Your task to perform on an android device: Open display settings Image 0: 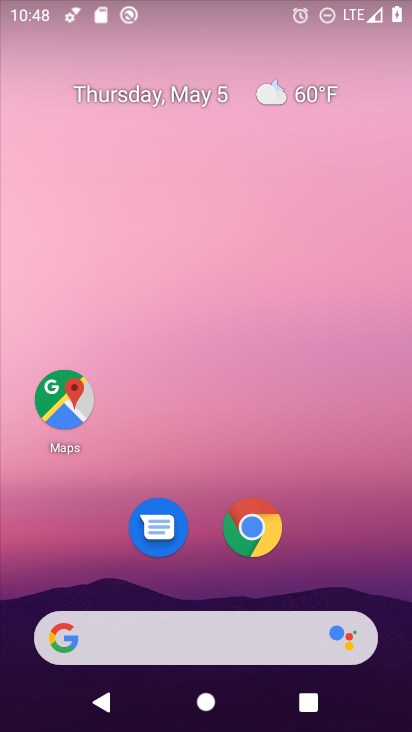
Step 0: drag from (243, 699) to (195, 48)
Your task to perform on an android device: Open display settings Image 1: 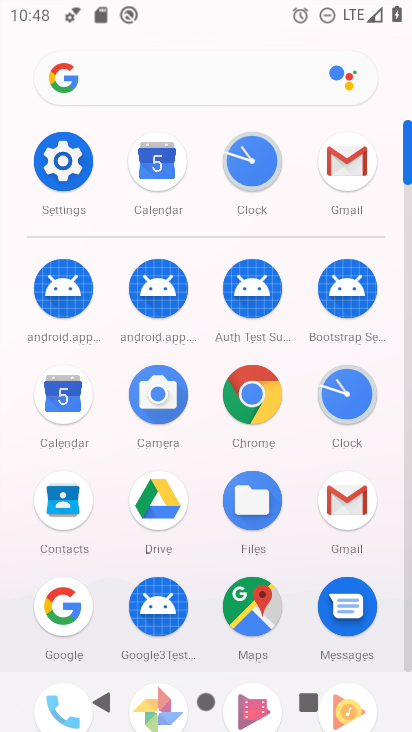
Step 1: click (64, 170)
Your task to perform on an android device: Open display settings Image 2: 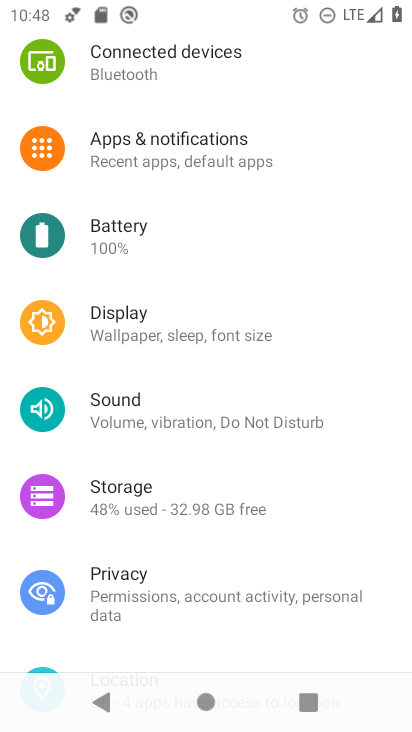
Step 2: click (135, 341)
Your task to perform on an android device: Open display settings Image 3: 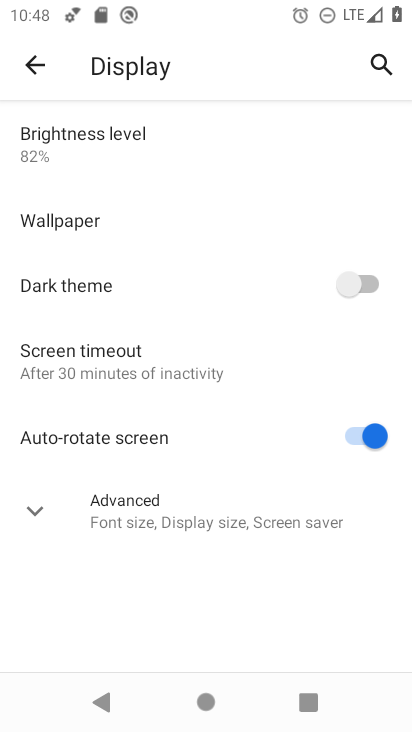
Step 3: task complete